Your task to perform on an android device: turn on data saver in the chrome app Image 0: 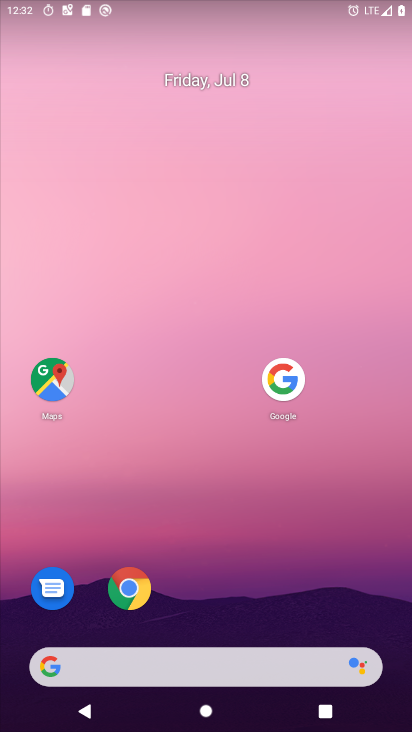
Step 0: drag from (162, 654) to (297, 95)
Your task to perform on an android device: turn on data saver in the chrome app Image 1: 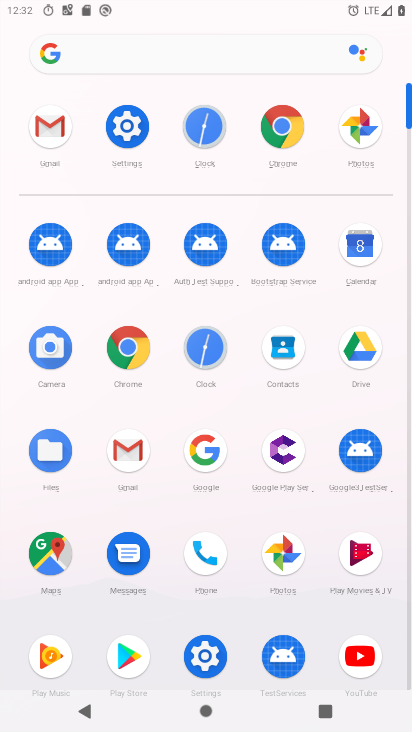
Step 1: click (281, 128)
Your task to perform on an android device: turn on data saver in the chrome app Image 2: 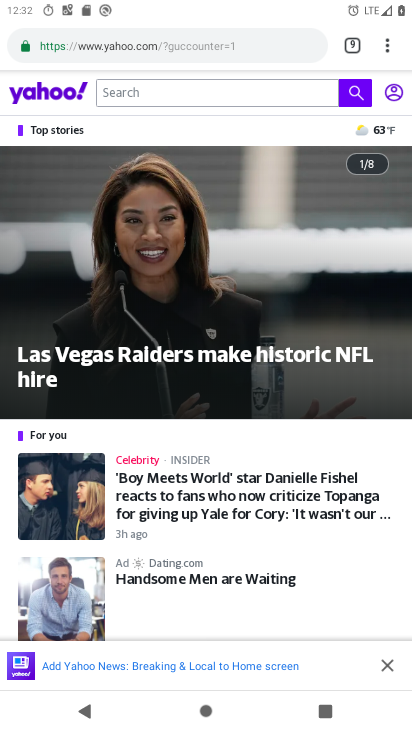
Step 2: drag from (387, 45) to (241, 547)
Your task to perform on an android device: turn on data saver in the chrome app Image 3: 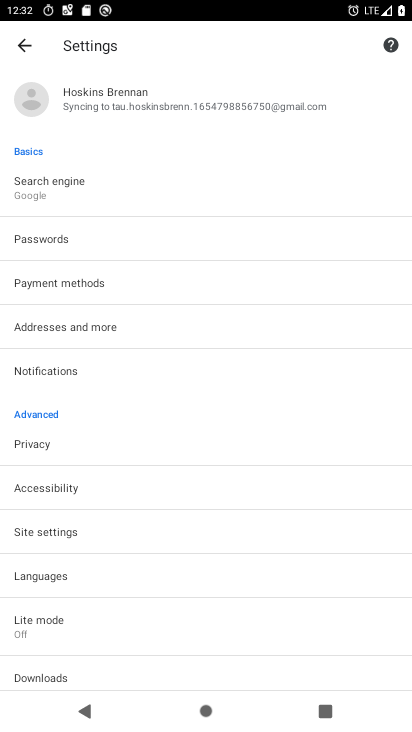
Step 3: click (56, 618)
Your task to perform on an android device: turn on data saver in the chrome app Image 4: 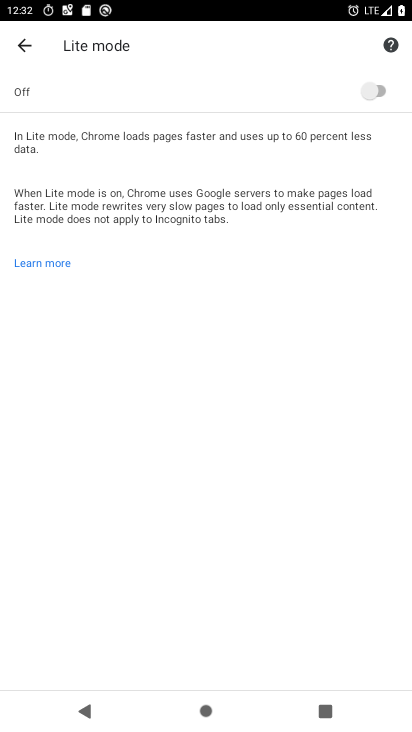
Step 4: click (376, 92)
Your task to perform on an android device: turn on data saver in the chrome app Image 5: 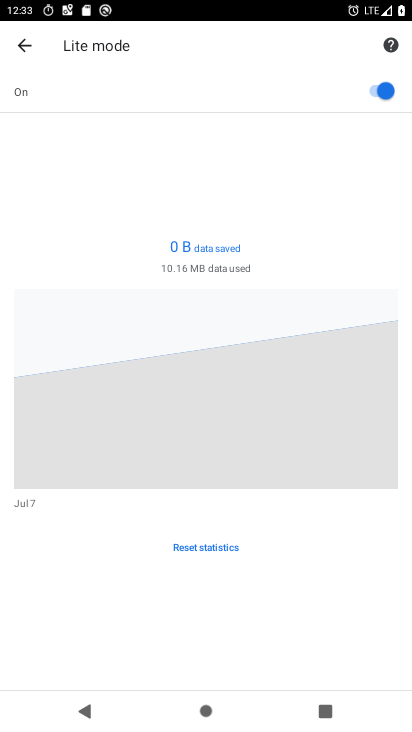
Step 5: task complete